Your task to perform on an android device: visit the assistant section in the google photos Image 0: 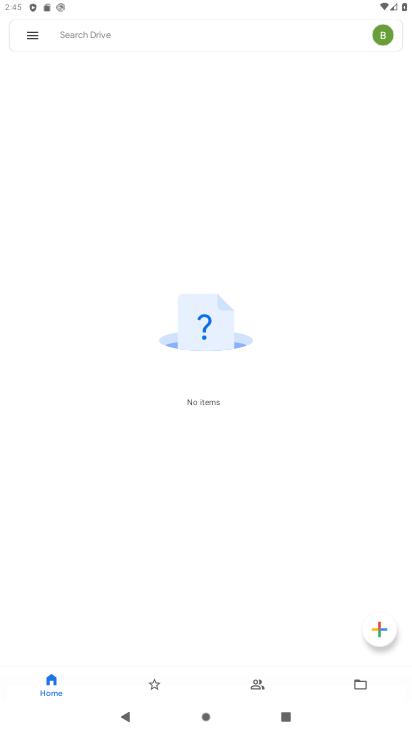
Step 0: press home button
Your task to perform on an android device: visit the assistant section in the google photos Image 1: 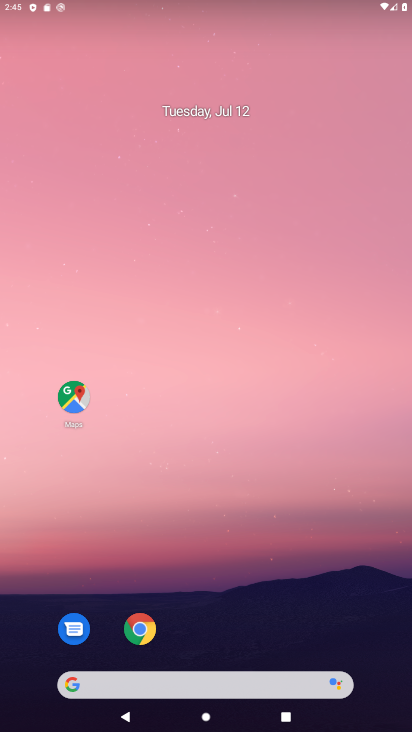
Step 1: drag from (242, 627) to (273, 159)
Your task to perform on an android device: visit the assistant section in the google photos Image 2: 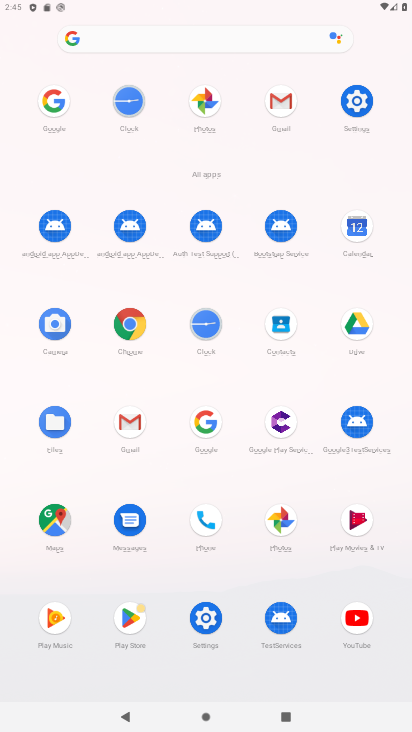
Step 2: click (276, 522)
Your task to perform on an android device: visit the assistant section in the google photos Image 3: 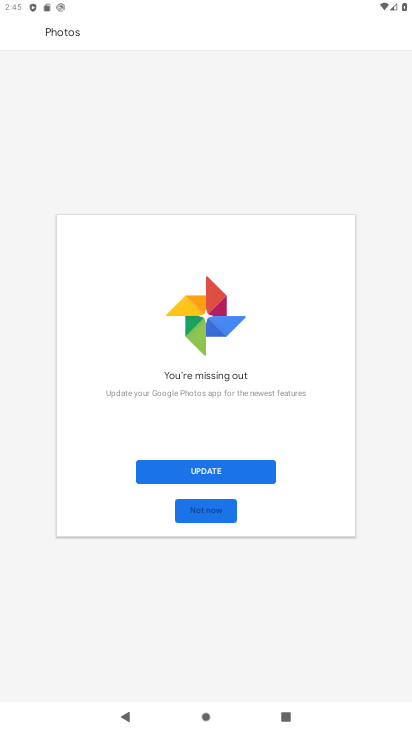
Step 3: drag from (208, 514) to (406, 192)
Your task to perform on an android device: visit the assistant section in the google photos Image 4: 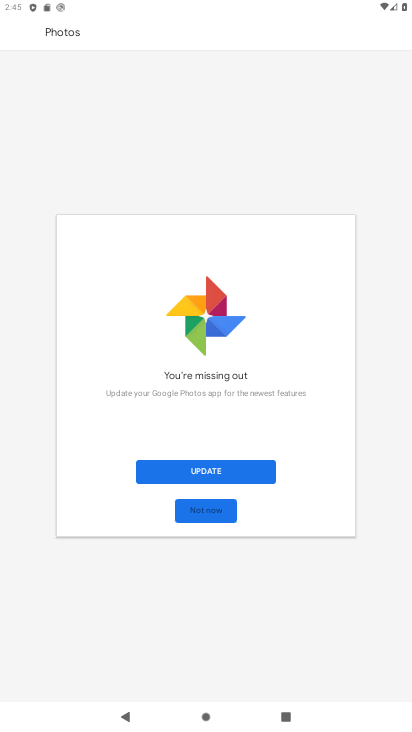
Step 4: drag from (183, 502) to (16, 424)
Your task to perform on an android device: visit the assistant section in the google photos Image 5: 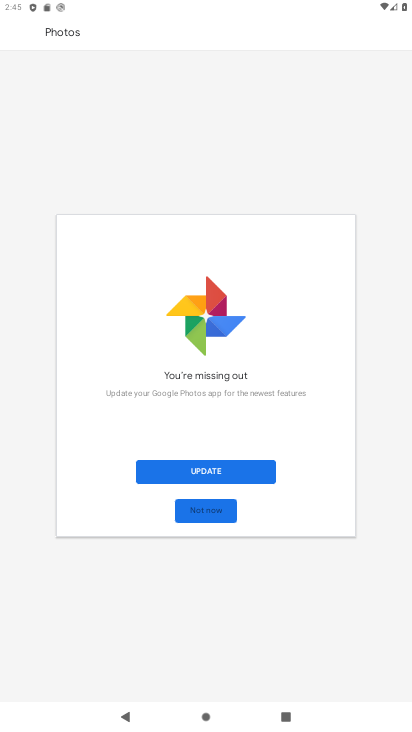
Step 5: click (192, 470)
Your task to perform on an android device: visit the assistant section in the google photos Image 6: 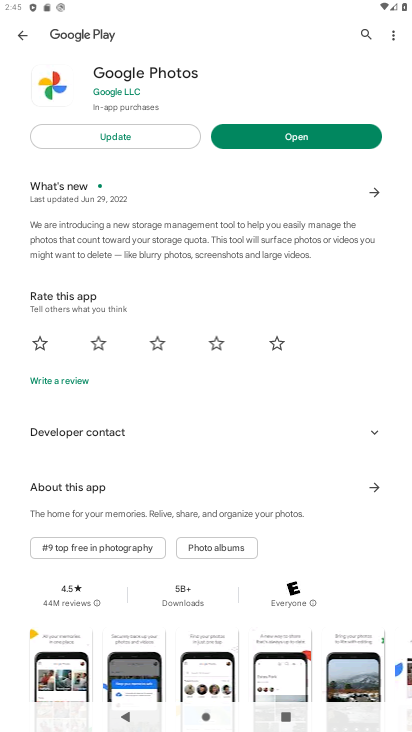
Step 6: click (155, 136)
Your task to perform on an android device: visit the assistant section in the google photos Image 7: 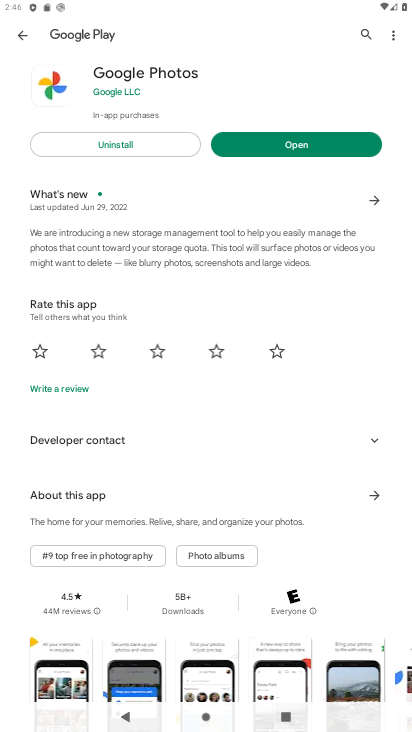
Step 7: click (321, 127)
Your task to perform on an android device: visit the assistant section in the google photos Image 8: 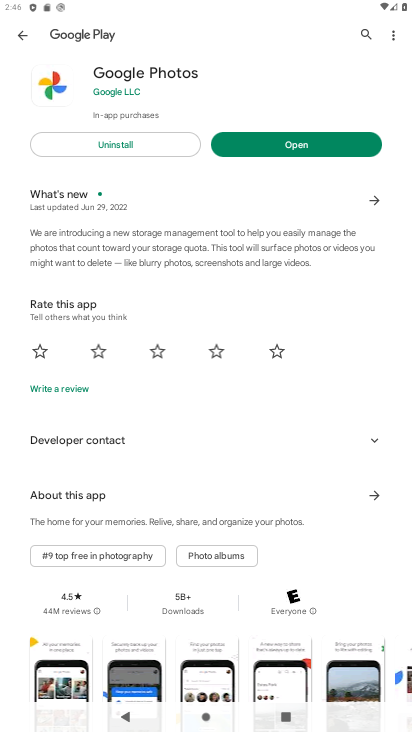
Step 8: click (302, 146)
Your task to perform on an android device: visit the assistant section in the google photos Image 9: 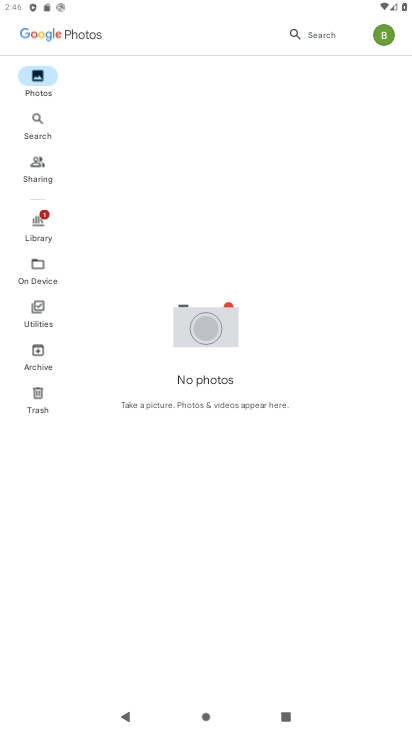
Step 9: click (43, 232)
Your task to perform on an android device: visit the assistant section in the google photos Image 10: 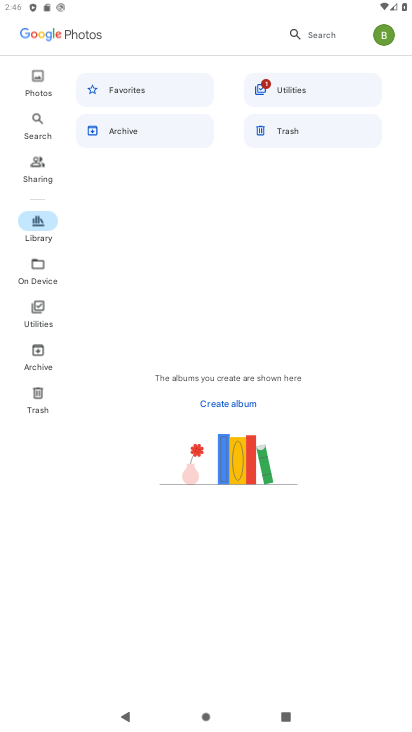
Step 10: task complete